Your task to perform on an android device: toggle translation in the chrome app Image 0: 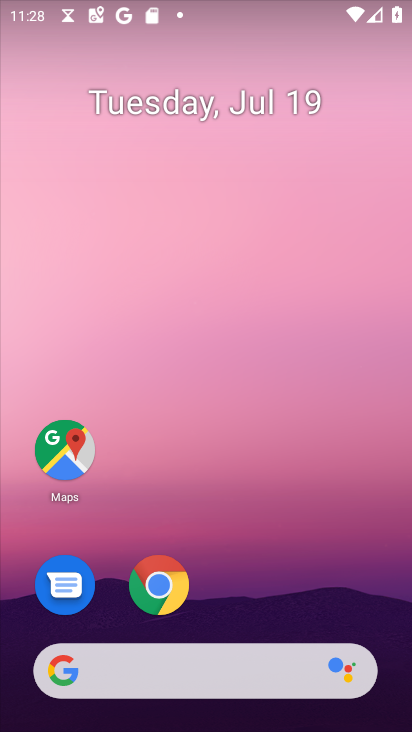
Step 0: click (165, 588)
Your task to perform on an android device: toggle translation in the chrome app Image 1: 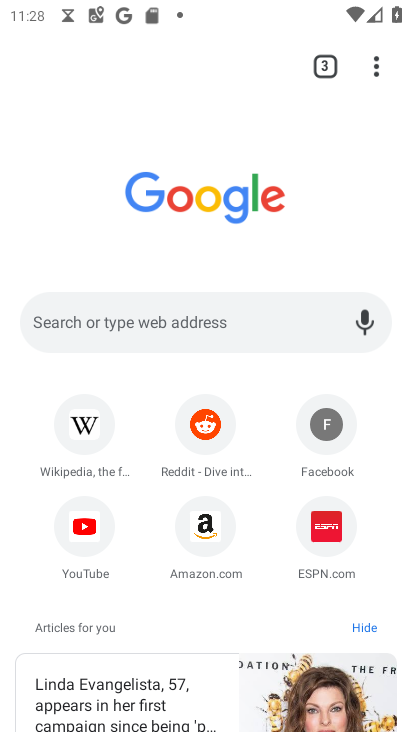
Step 1: drag from (369, 73) to (206, 560)
Your task to perform on an android device: toggle translation in the chrome app Image 2: 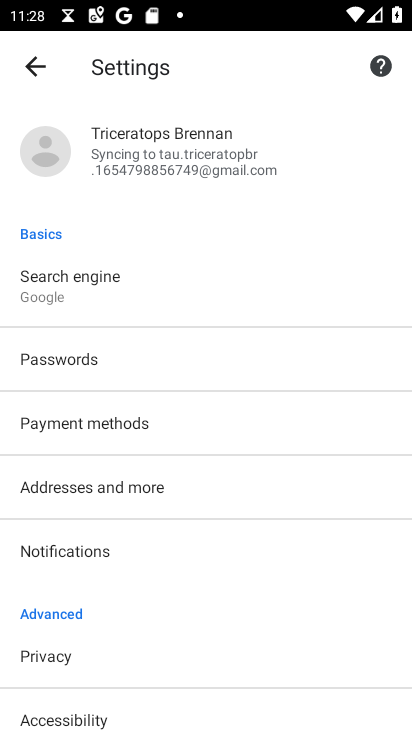
Step 2: drag from (176, 621) to (250, 115)
Your task to perform on an android device: toggle translation in the chrome app Image 3: 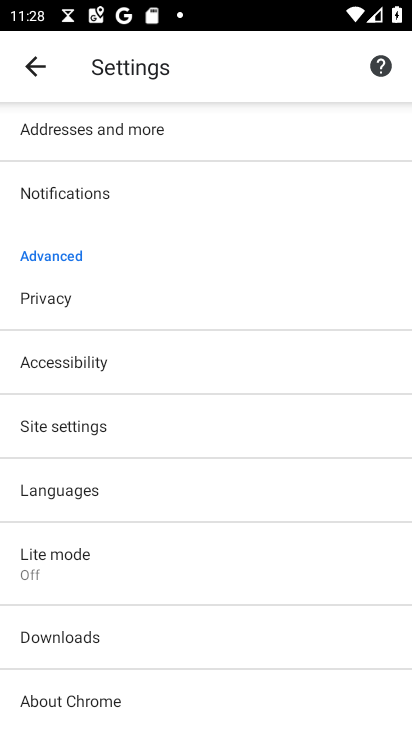
Step 3: click (156, 491)
Your task to perform on an android device: toggle translation in the chrome app Image 4: 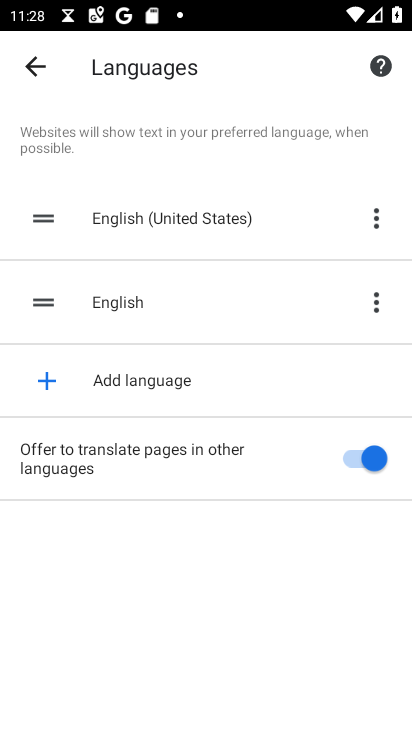
Step 4: click (351, 460)
Your task to perform on an android device: toggle translation in the chrome app Image 5: 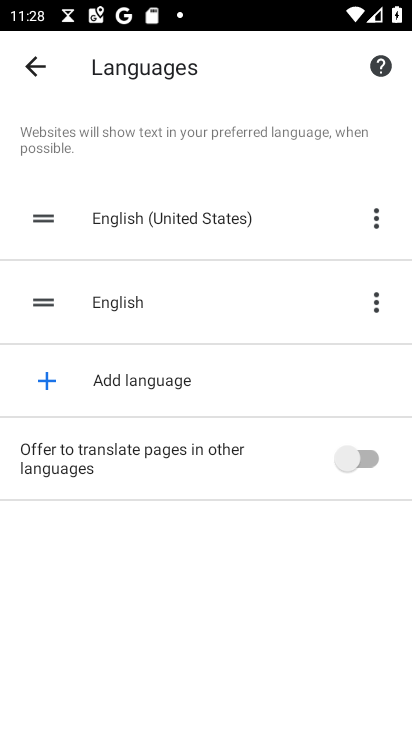
Step 5: task complete